Your task to perform on an android device: toggle javascript in the chrome app Image 0: 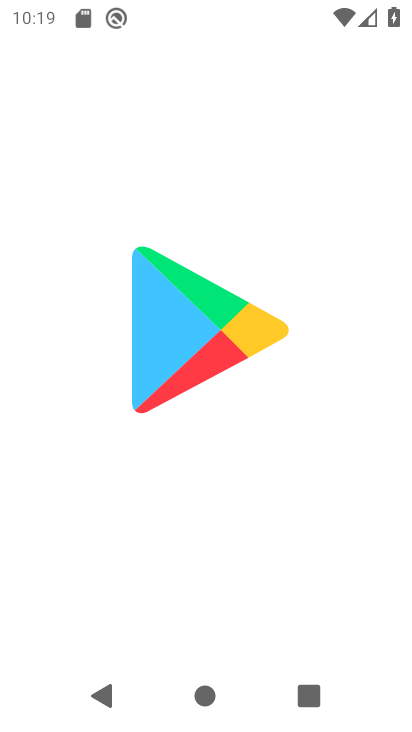
Step 0: drag from (373, 513) to (373, 227)
Your task to perform on an android device: toggle javascript in the chrome app Image 1: 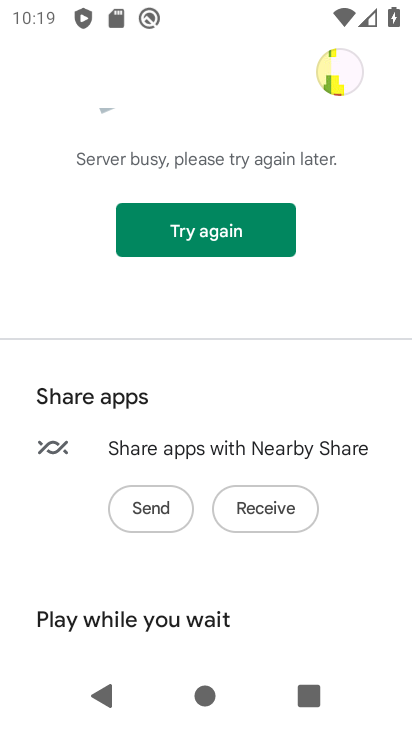
Step 1: task complete